Your task to perform on an android device: check google app version Image 0: 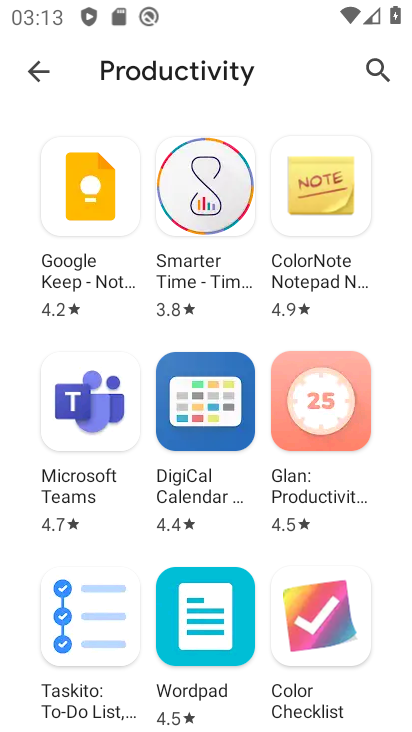
Step 0: press home button
Your task to perform on an android device: check google app version Image 1: 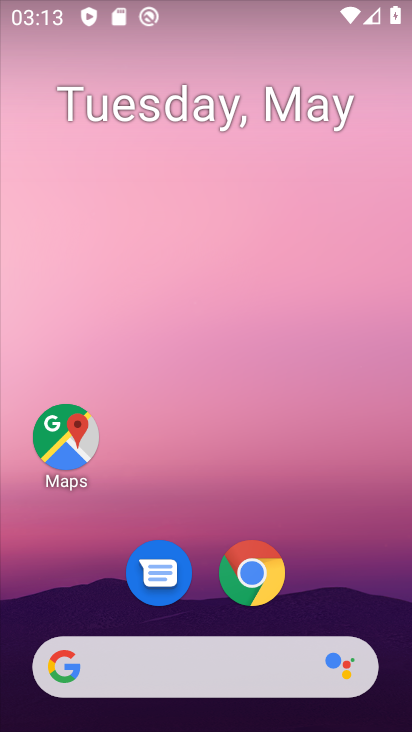
Step 1: drag from (109, 593) to (247, 26)
Your task to perform on an android device: check google app version Image 2: 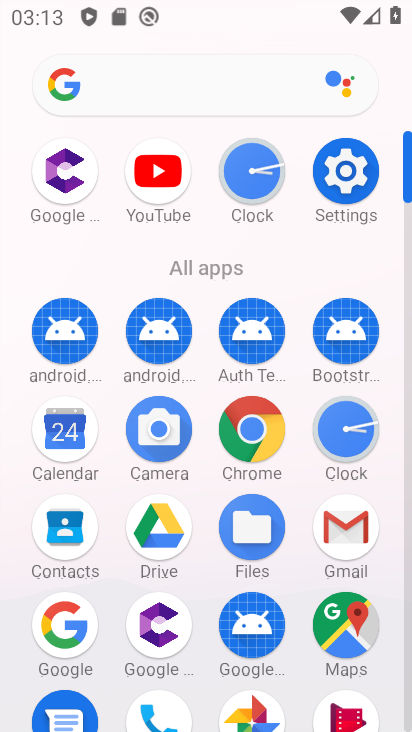
Step 2: click (47, 648)
Your task to perform on an android device: check google app version Image 3: 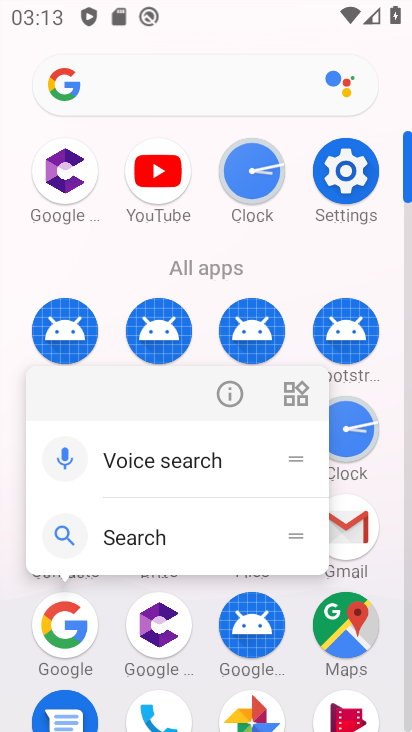
Step 3: click (229, 396)
Your task to perform on an android device: check google app version Image 4: 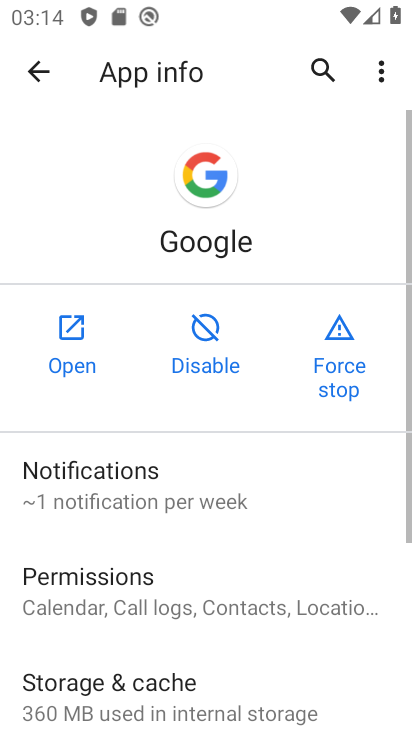
Step 4: drag from (131, 666) to (243, 64)
Your task to perform on an android device: check google app version Image 5: 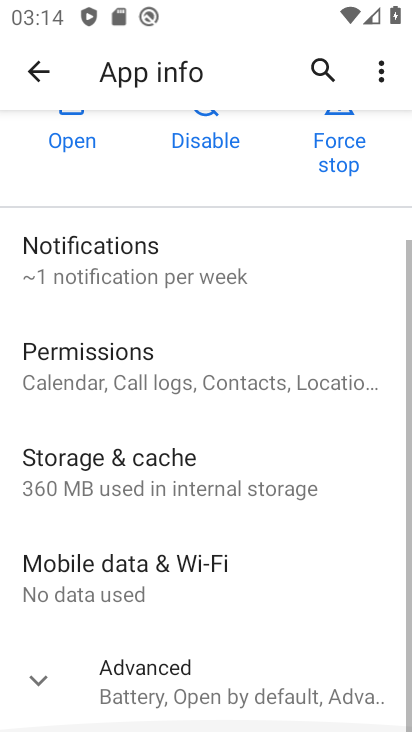
Step 5: drag from (169, 651) to (248, 60)
Your task to perform on an android device: check google app version Image 6: 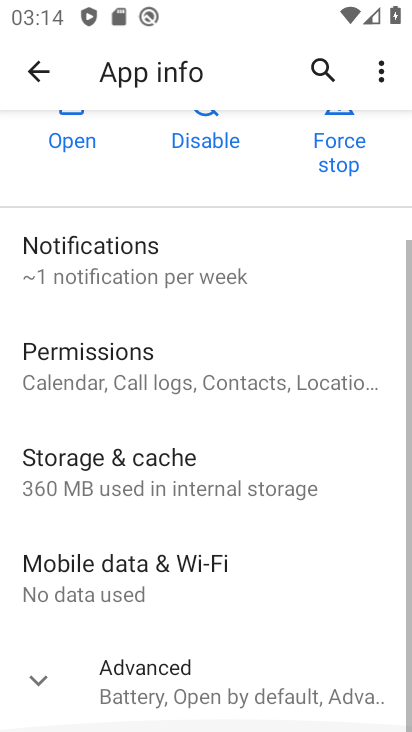
Step 6: click (177, 699)
Your task to perform on an android device: check google app version Image 7: 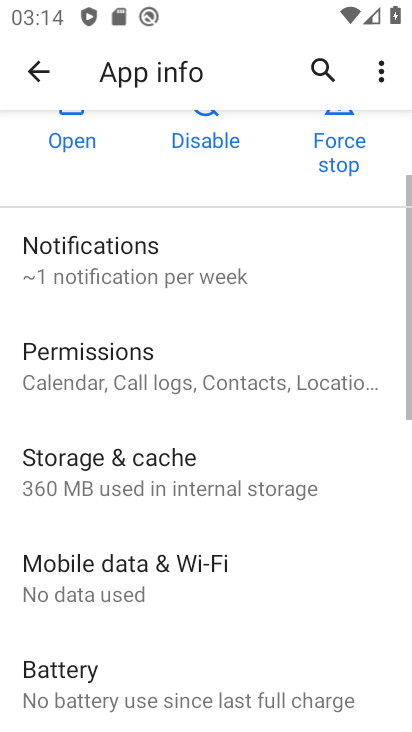
Step 7: task complete